Your task to perform on an android device: turn on wifi Image 0: 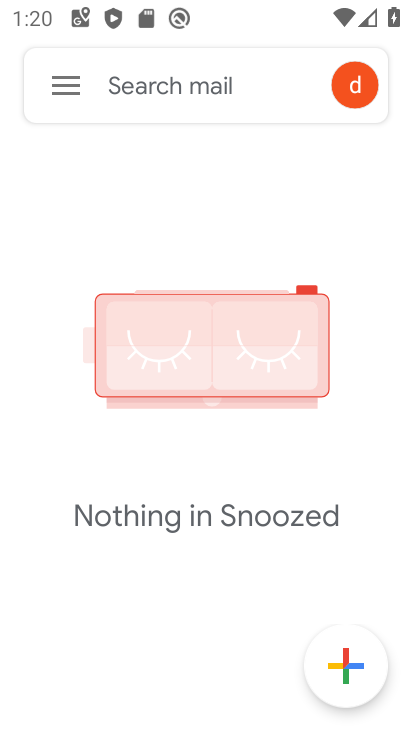
Step 0: press home button
Your task to perform on an android device: turn on wifi Image 1: 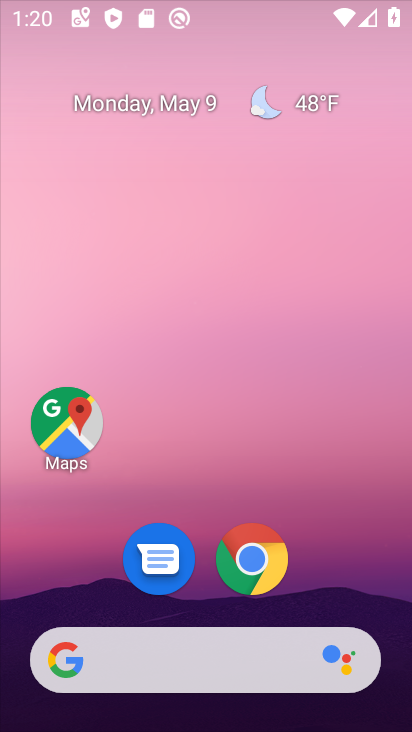
Step 1: drag from (293, 550) to (325, 246)
Your task to perform on an android device: turn on wifi Image 2: 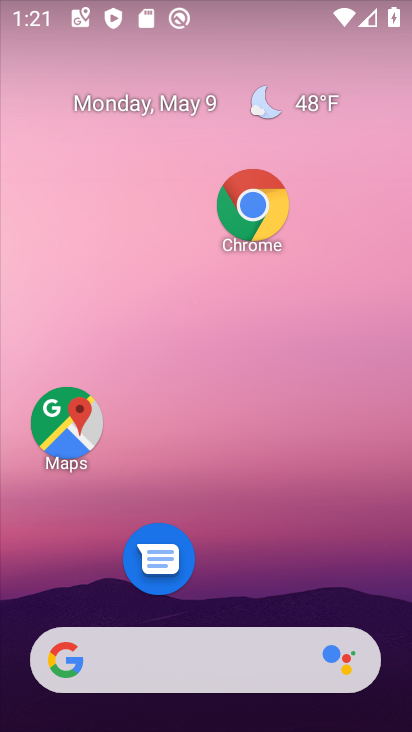
Step 2: drag from (313, 599) to (346, 252)
Your task to perform on an android device: turn on wifi Image 3: 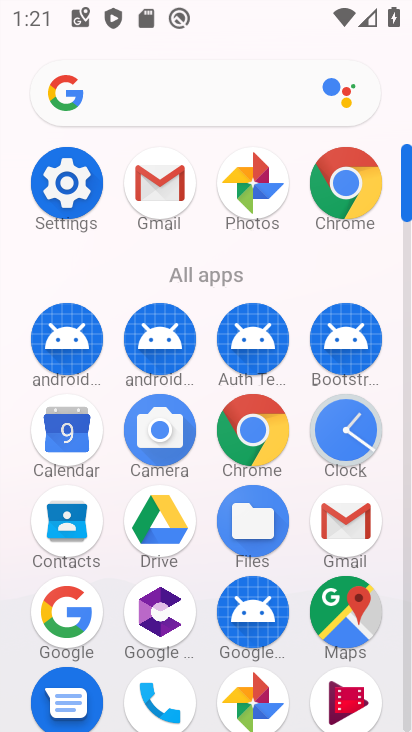
Step 3: click (56, 186)
Your task to perform on an android device: turn on wifi Image 4: 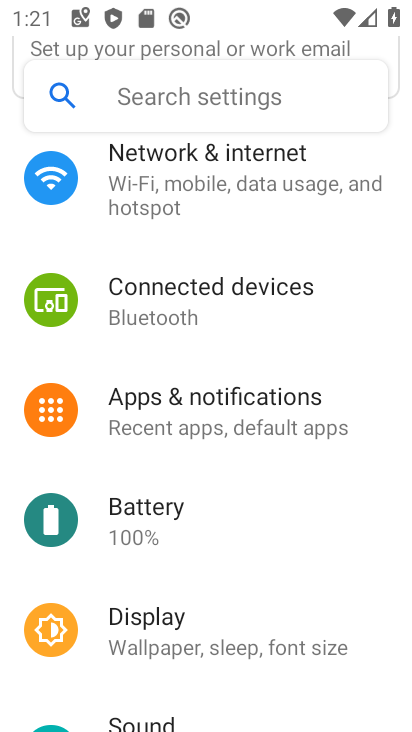
Step 4: click (193, 161)
Your task to perform on an android device: turn on wifi Image 5: 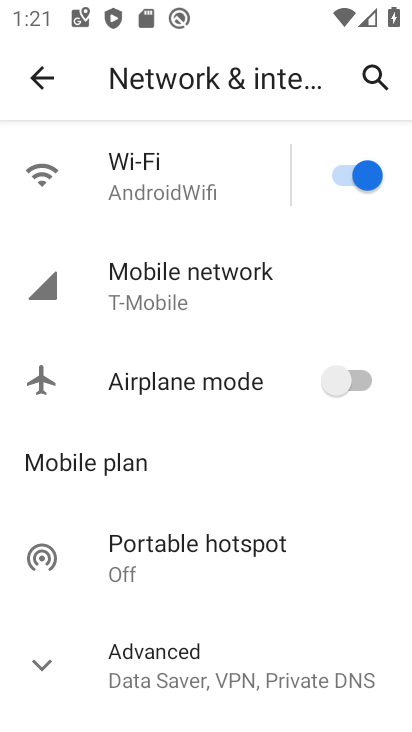
Step 5: task complete